Your task to perform on an android device: refresh tabs in the chrome app Image 0: 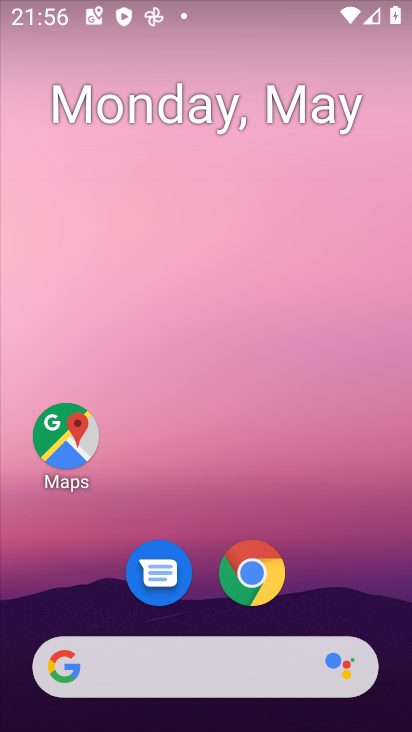
Step 0: click (268, 561)
Your task to perform on an android device: refresh tabs in the chrome app Image 1: 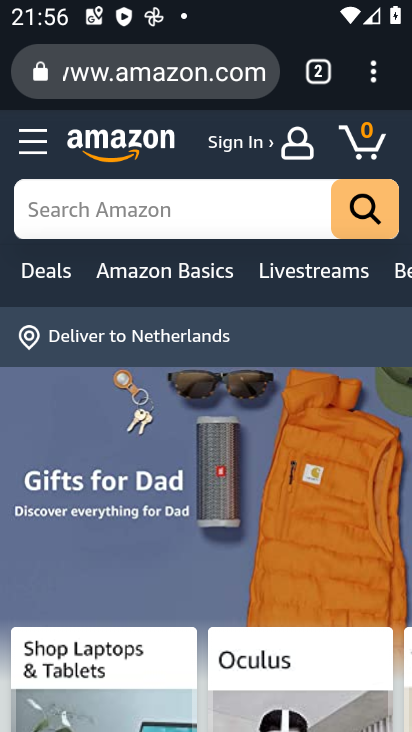
Step 1: click (359, 77)
Your task to perform on an android device: refresh tabs in the chrome app Image 2: 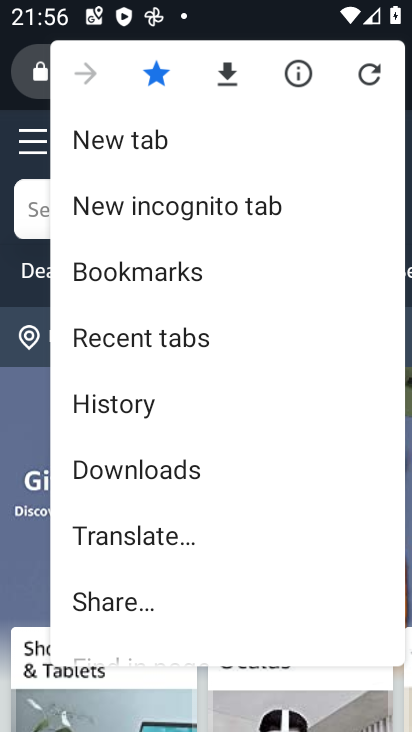
Step 2: click (216, 338)
Your task to perform on an android device: refresh tabs in the chrome app Image 3: 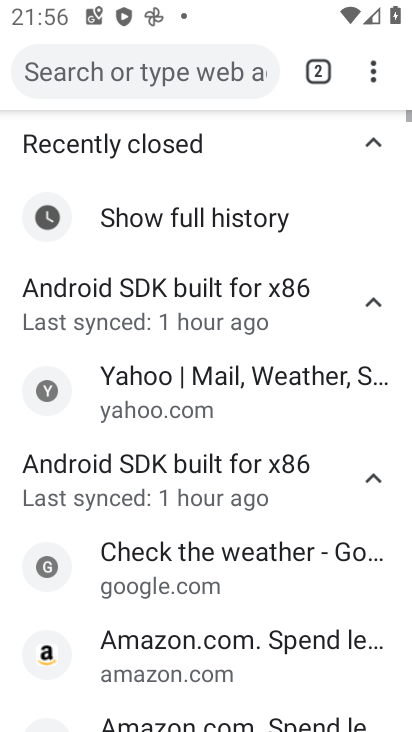
Step 3: task complete